Your task to perform on an android device: turn vacation reply on in the gmail app Image 0: 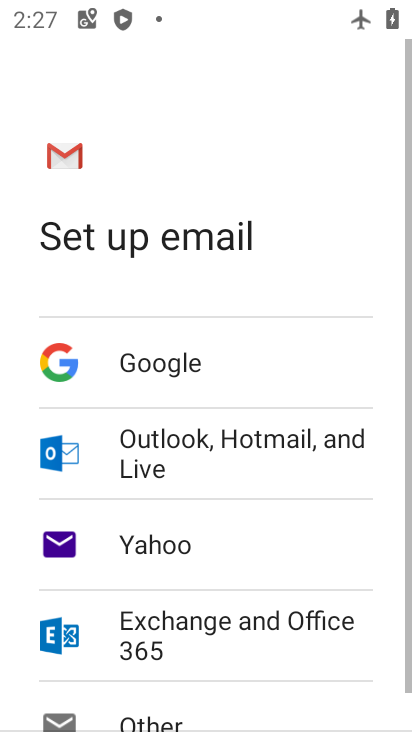
Step 0: press home button
Your task to perform on an android device: turn vacation reply on in the gmail app Image 1: 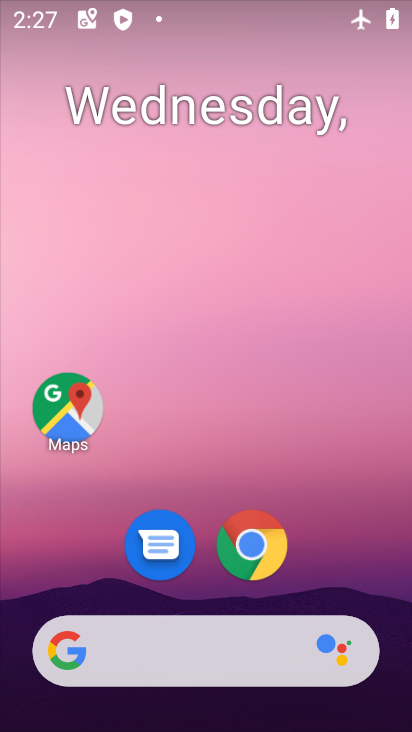
Step 1: drag from (301, 528) to (266, 156)
Your task to perform on an android device: turn vacation reply on in the gmail app Image 2: 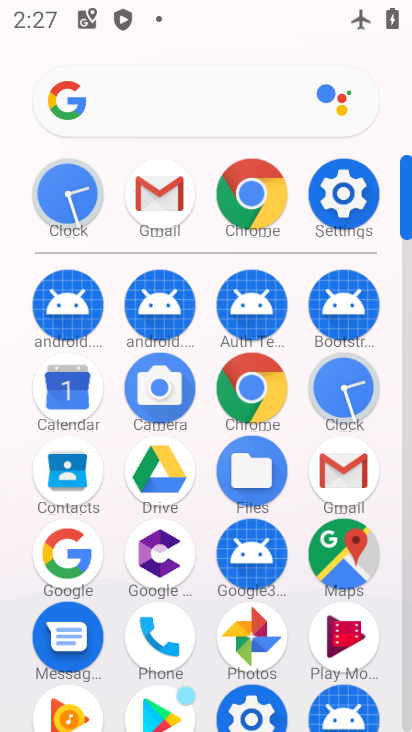
Step 2: click (155, 188)
Your task to perform on an android device: turn vacation reply on in the gmail app Image 3: 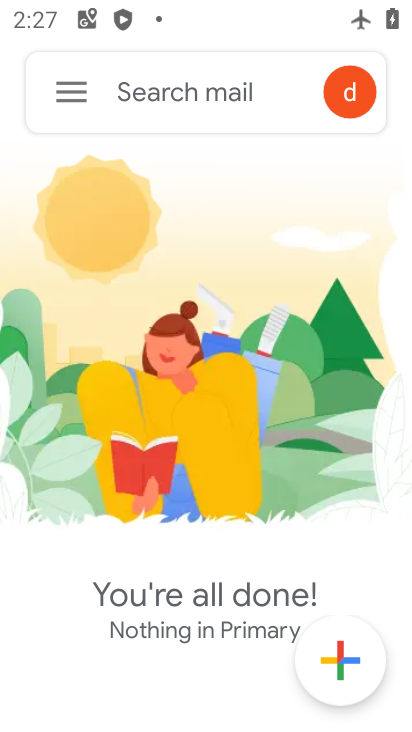
Step 3: click (71, 87)
Your task to perform on an android device: turn vacation reply on in the gmail app Image 4: 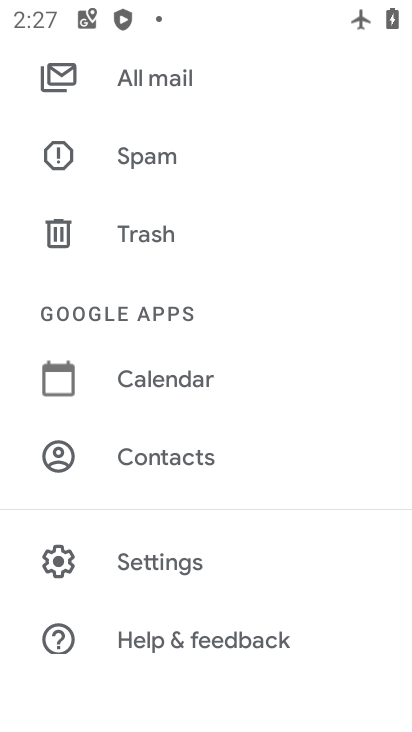
Step 4: click (181, 574)
Your task to perform on an android device: turn vacation reply on in the gmail app Image 5: 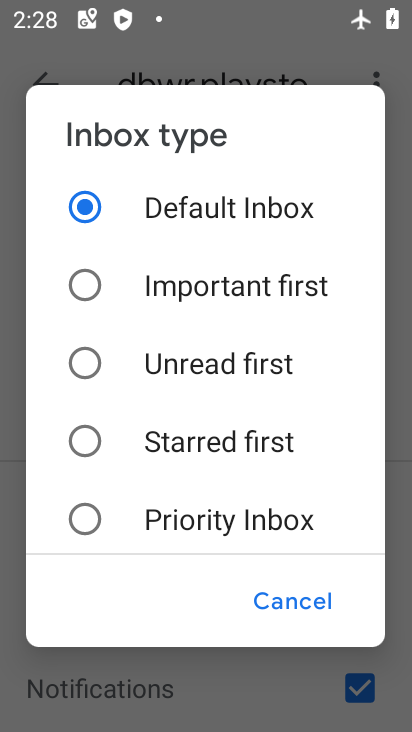
Step 5: click (298, 596)
Your task to perform on an android device: turn vacation reply on in the gmail app Image 6: 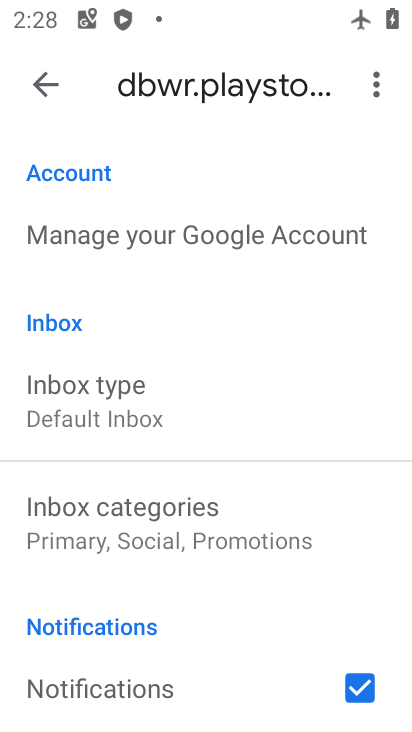
Step 6: drag from (213, 554) to (197, 61)
Your task to perform on an android device: turn vacation reply on in the gmail app Image 7: 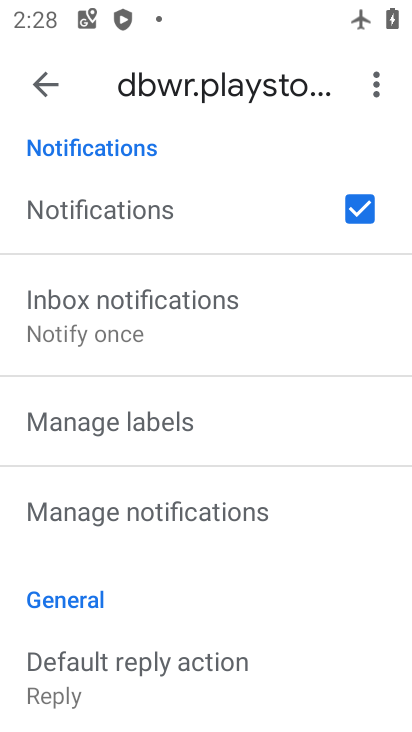
Step 7: drag from (201, 527) to (211, 263)
Your task to perform on an android device: turn vacation reply on in the gmail app Image 8: 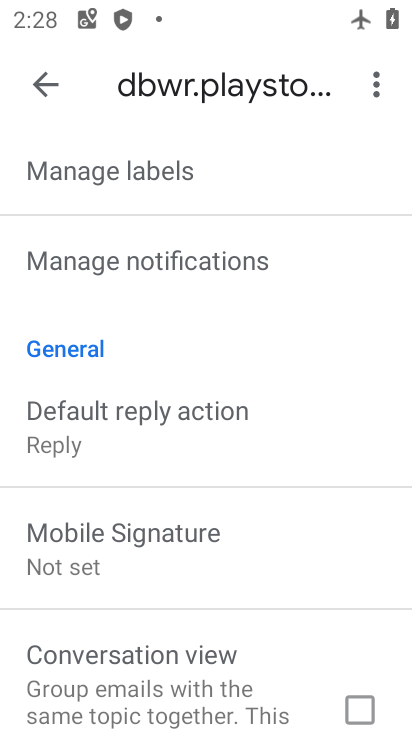
Step 8: drag from (167, 286) to (215, 568)
Your task to perform on an android device: turn vacation reply on in the gmail app Image 9: 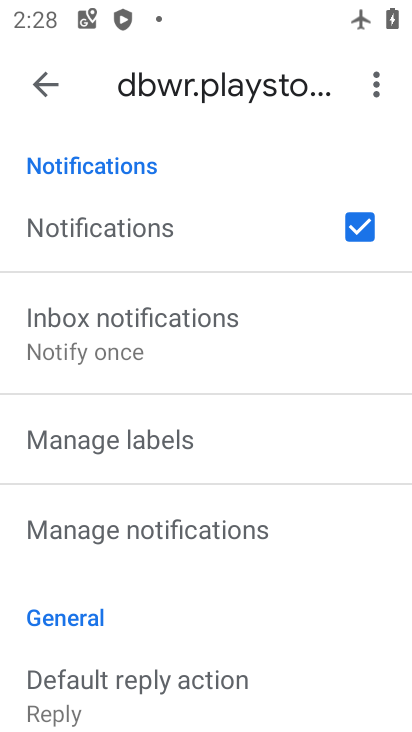
Step 9: drag from (228, 273) to (286, 593)
Your task to perform on an android device: turn vacation reply on in the gmail app Image 10: 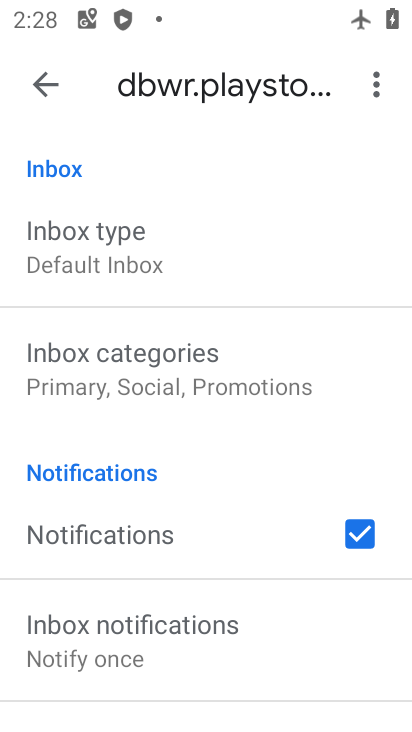
Step 10: drag from (261, 623) to (269, 126)
Your task to perform on an android device: turn vacation reply on in the gmail app Image 11: 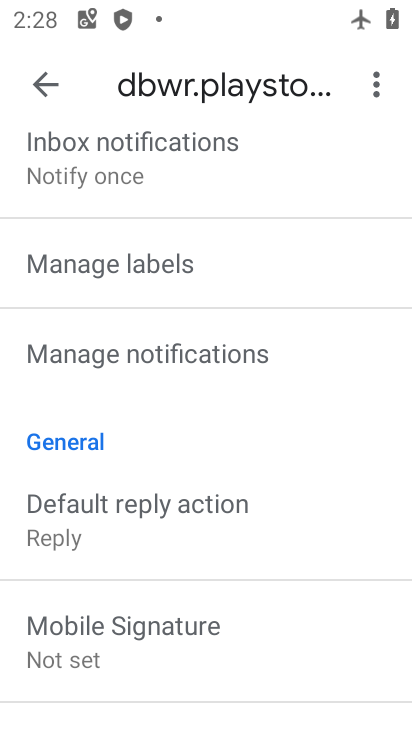
Step 11: drag from (257, 629) to (276, 200)
Your task to perform on an android device: turn vacation reply on in the gmail app Image 12: 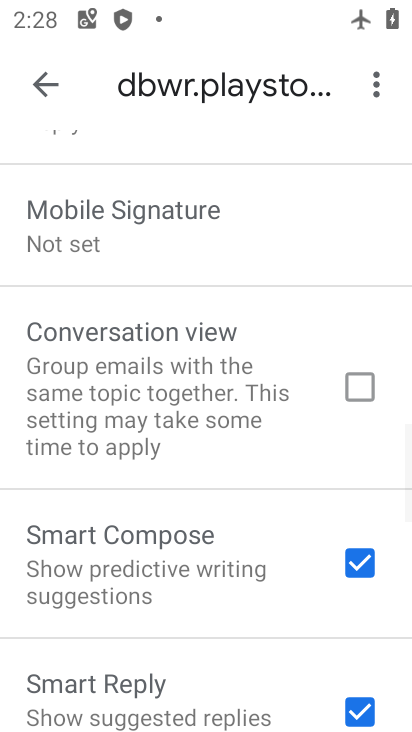
Step 12: drag from (215, 547) to (271, 176)
Your task to perform on an android device: turn vacation reply on in the gmail app Image 13: 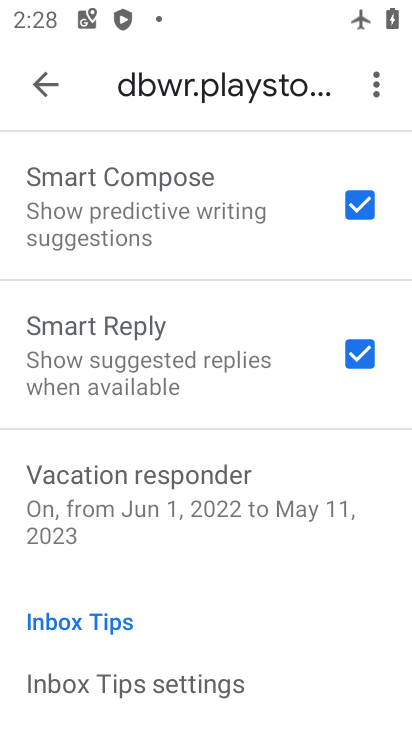
Step 13: click (173, 496)
Your task to perform on an android device: turn vacation reply on in the gmail app Image 14: 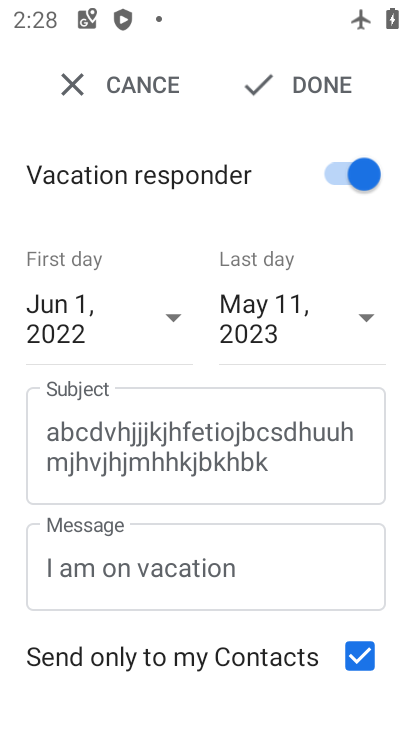
Step 14: task complete